Your task to perform on an android device: see sites visited before in the chrome app Image 0: 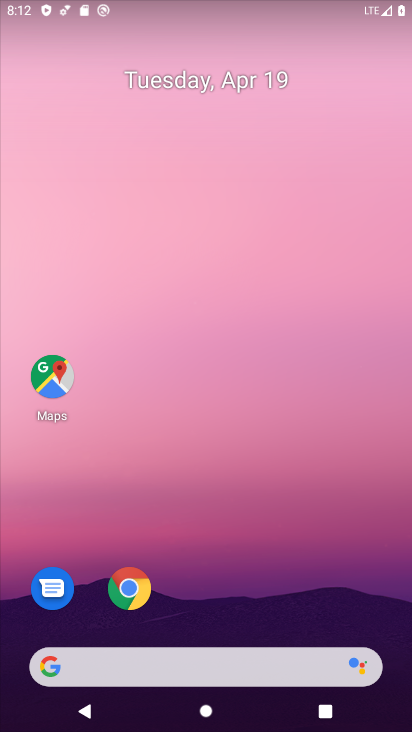
Step 0: click (142, 595)
Your task to perform on an android device: see sites visited before in the chrome app Image 1: 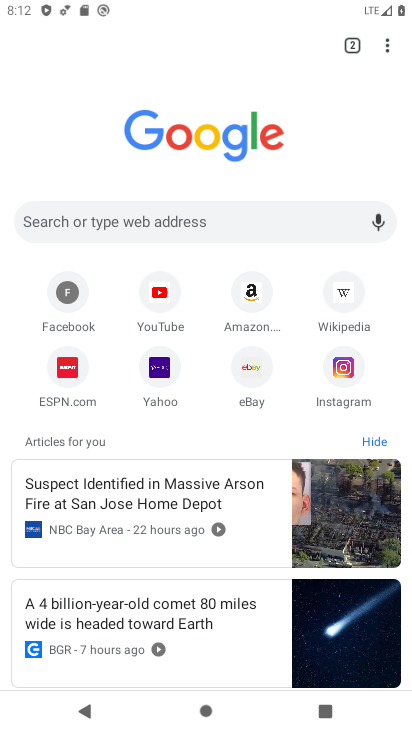
Step 1: click (393, 57)
Your task to perform on an android device: see sites visited before in the chrome app Image 2: 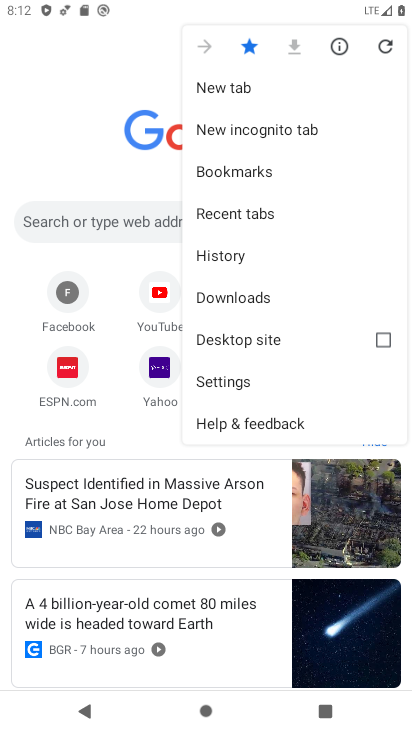
Step 2: click (290, 223)
Your task to perform on an android device: see sites visited before in the chrome app Image 3: 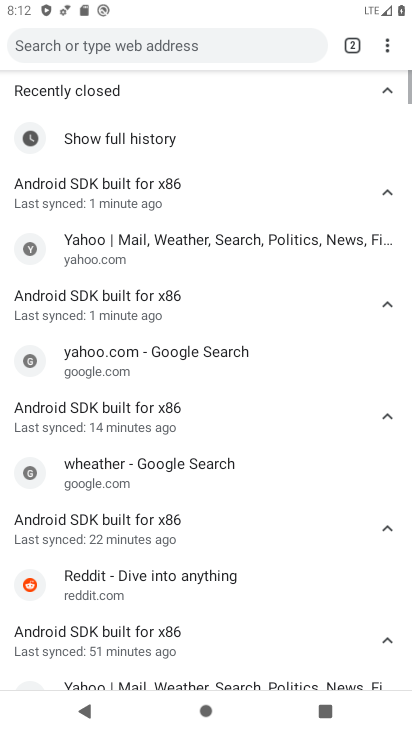
Step 3: task complete